Your task to perform on an android device: Go to Wikipedia Image 0: 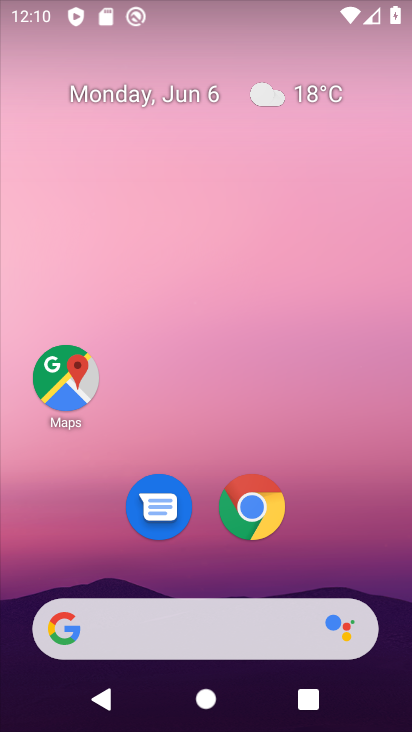
Step 0: click (267, 511)
Your task to perform on an android device: Go to Wikipedia Image 1: 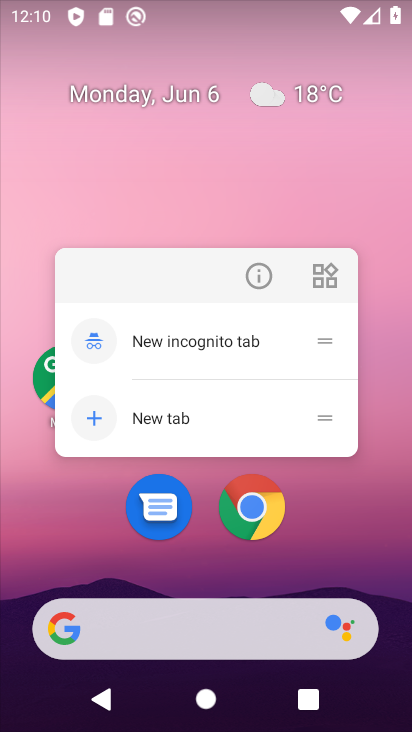
Step 1: click (267, 511)
Your task to perform on an android device: Go to Wikipedia Image 2: 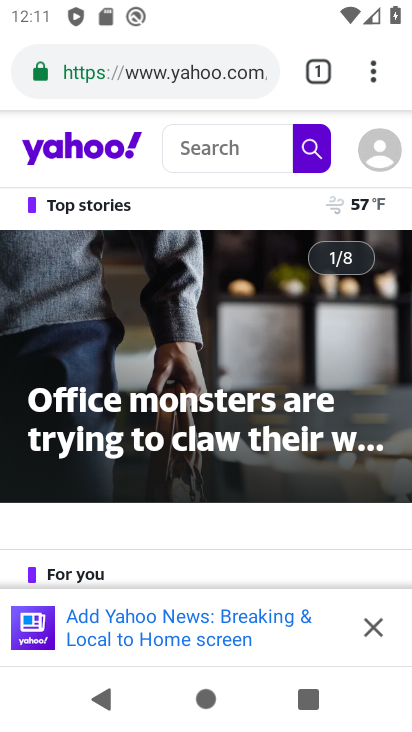
Step 2: click (171, 68)
Your task to perform on an android device: Go to Wikipedia Image 3: 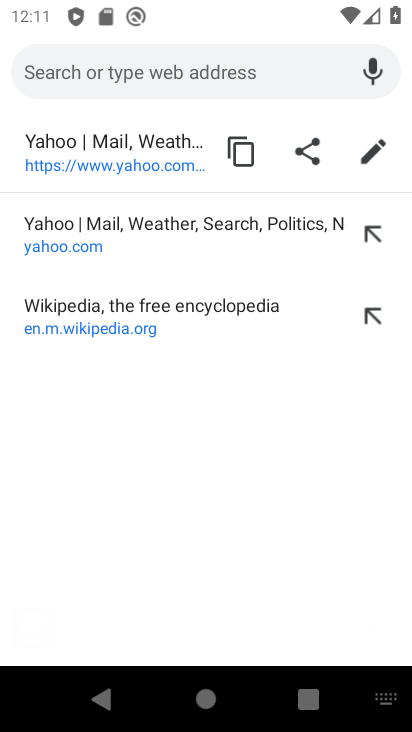
Step 3: type "wikipedia"
Your task to perform on an android device: Go to Wikipedia Image 4: 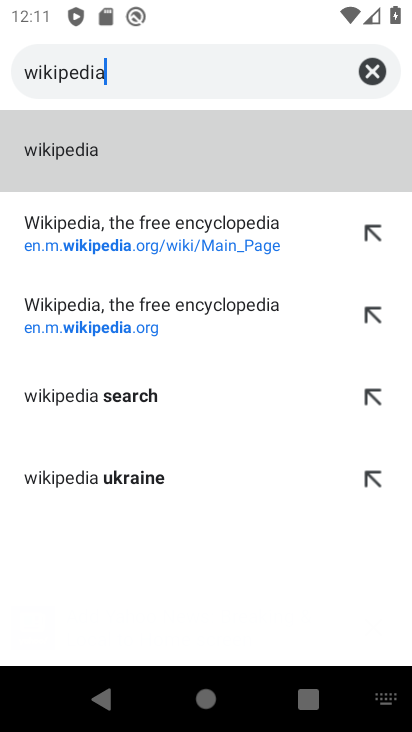
Step 4: click (160, 167)
Your task to perform on an android device: Go to Wikipedia Image 5: 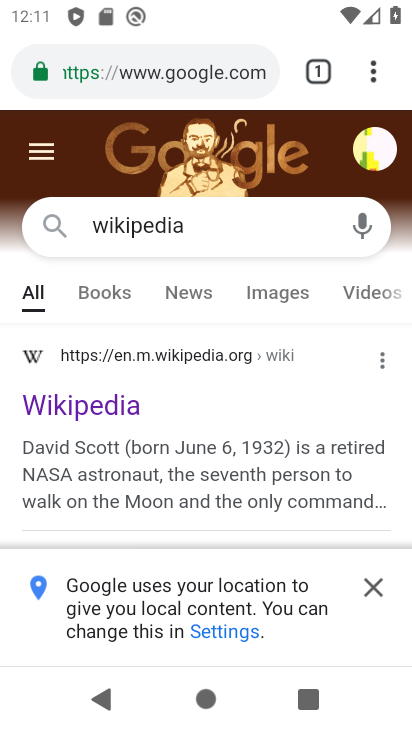
Step 5: click (384, 589)
Your task to perform on an android device: Go to Wikipedia Image 6: 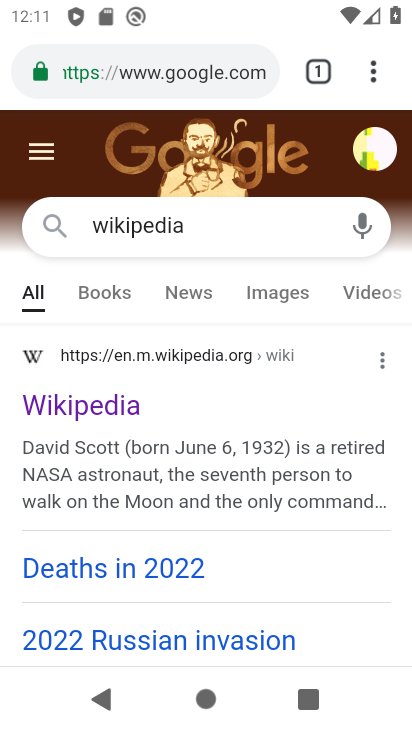
Step 6: task complete